Your task to perform on an android device: toggle notification dots Image 0: 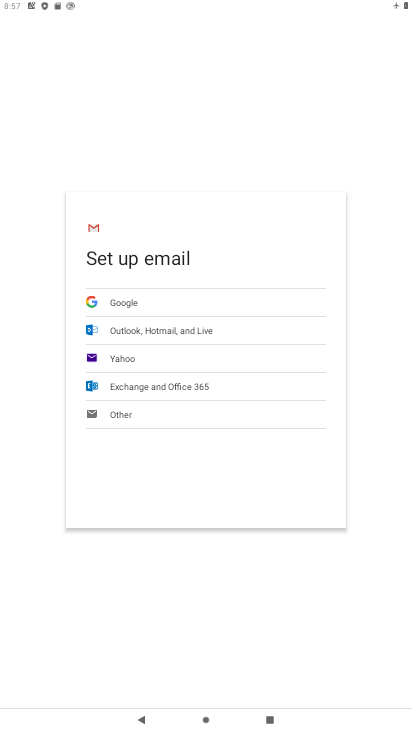
Step 0: press home button
Your task to perform on an android device: toggle notification dots Image 1: 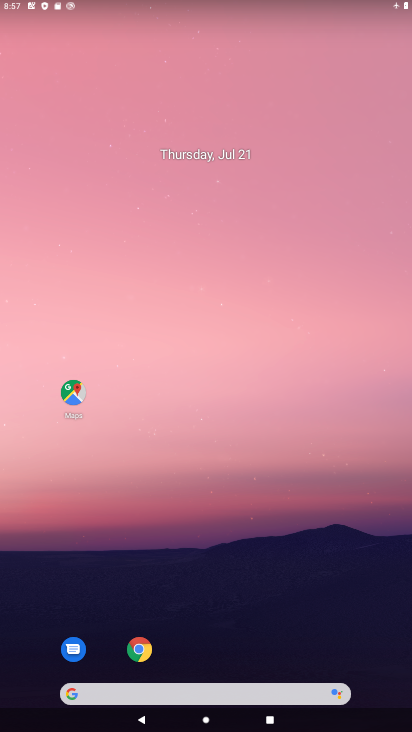
Step 1: drag from (255, 646) to (216, 94)
Your task to perform on an android device: toggle notification dots Image 2: 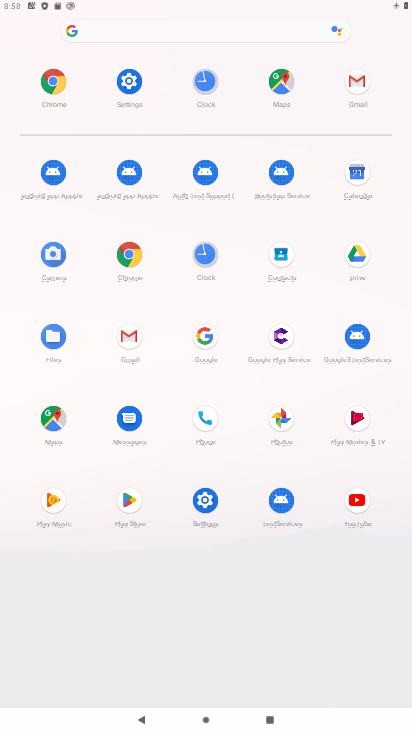
Step 2: click (206, 512)
Your task to perform on an android device: toggle notification dots Image 3: 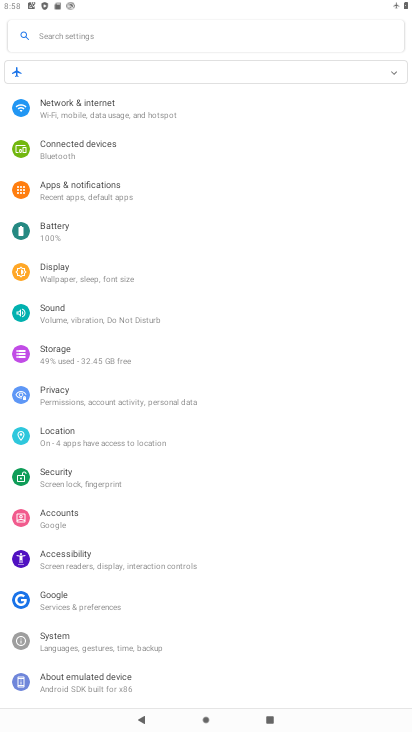
Step 3: click (107, 192)
Your task to perform on an android device: toggle notification dots Image 4: 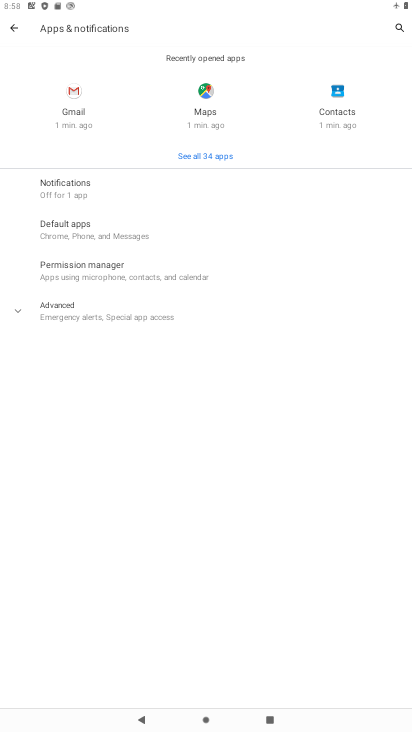
Step 4: click (76, 196)
Your task to perform on an android device: toggle notification dots Image 5: 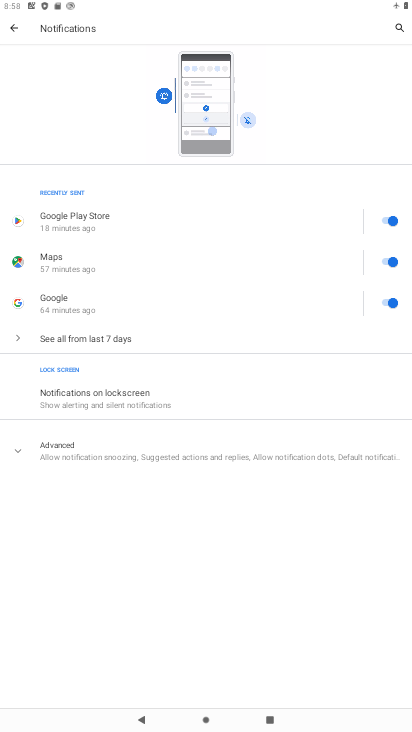
Step 5: click (114, 450)
Your task to perform on an android device: toggle notification dots Image 6: 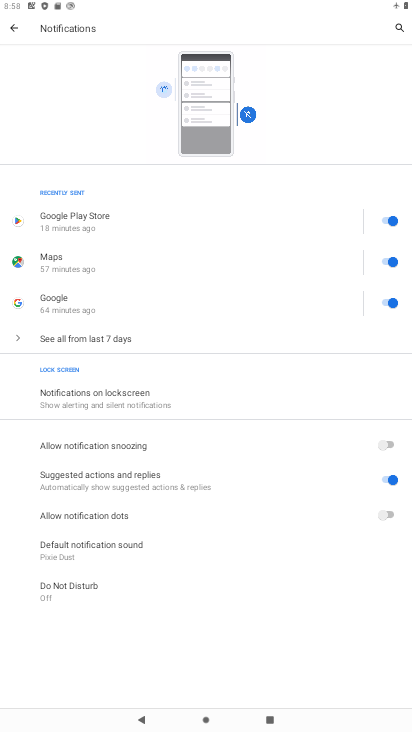
Step 6: click (397, 515)
Your task to perform on an android device: toggle notification dots Image 7: 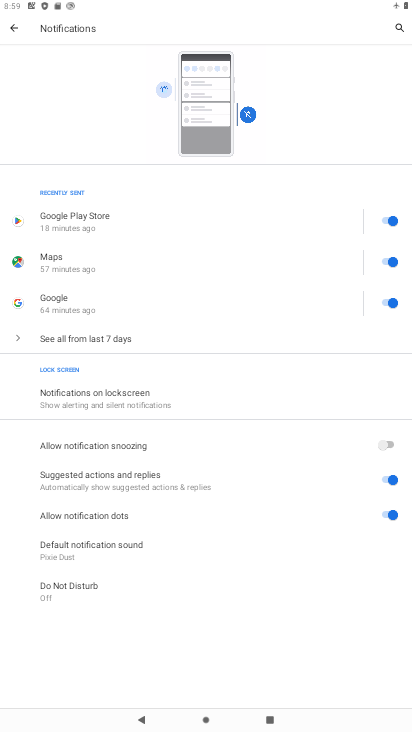
Step 7: press home button
Your task to perform on an android device: toggle notification dots Image 8: 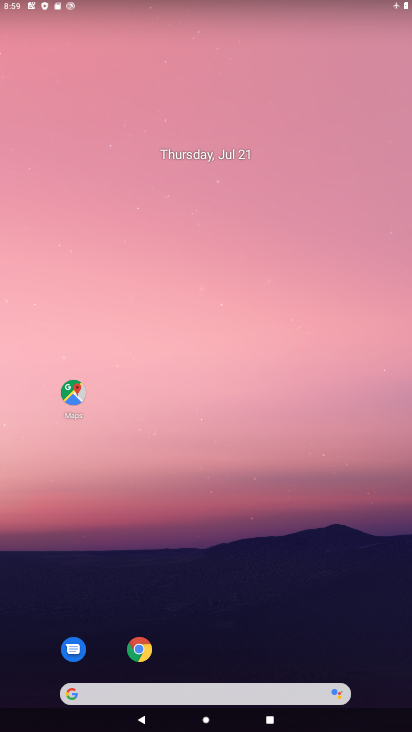
Step 8: drag from (260, 628) to (251, 50)
Your task to perform on an android device: toggle notification dots Image 9: 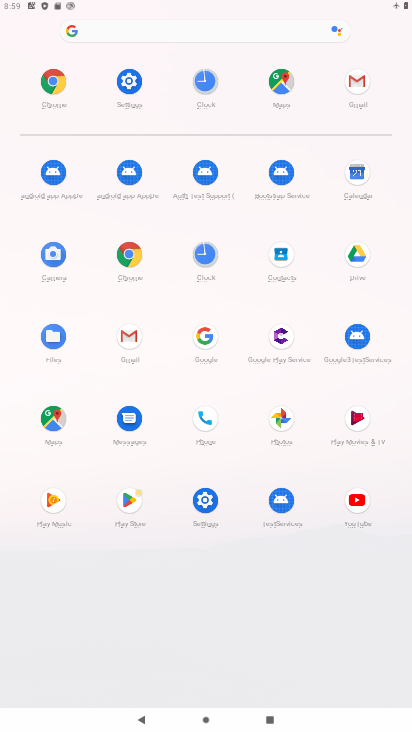
Step 9: click (199, 502)
Your task to perform on an android device: toggle notification dots Image 10: 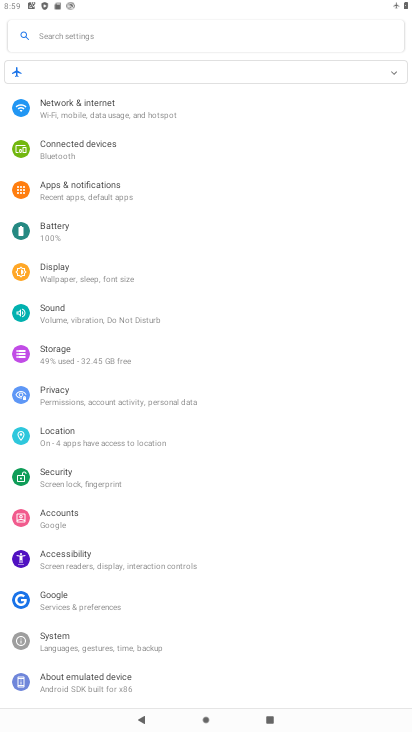
Step 10: click (112, 191)
Your task to perform on an android device: toggle notification dots Image 11: 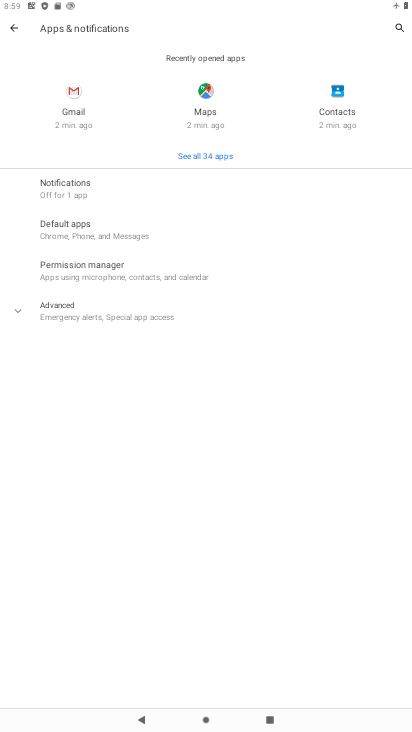
Step 11: click (91, 197)
Your task to perform on an android device: toggle notification dots Image 12: 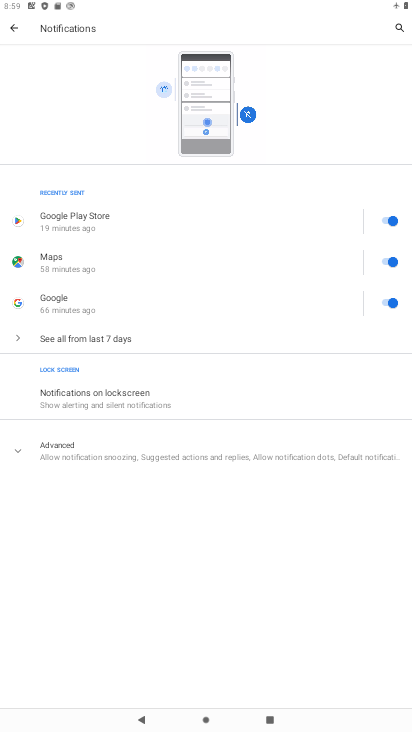
Step 12: click (136, 458)
Your task to perform on an android device: toggle notification dots Image 13: 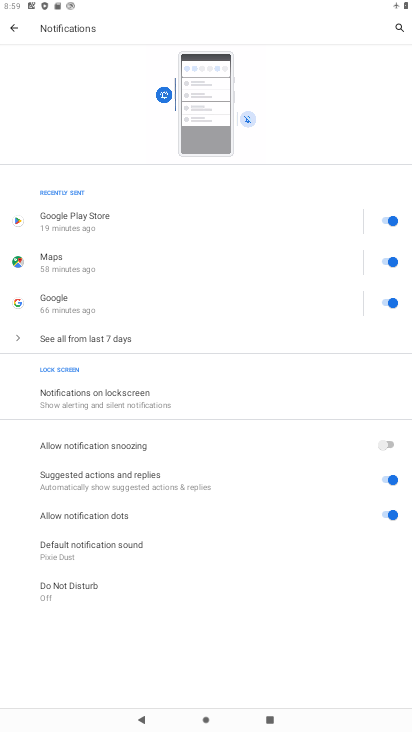
Step 13: click (374, 512)
Your task to perform on an android device: toggle notification dots Image 14: 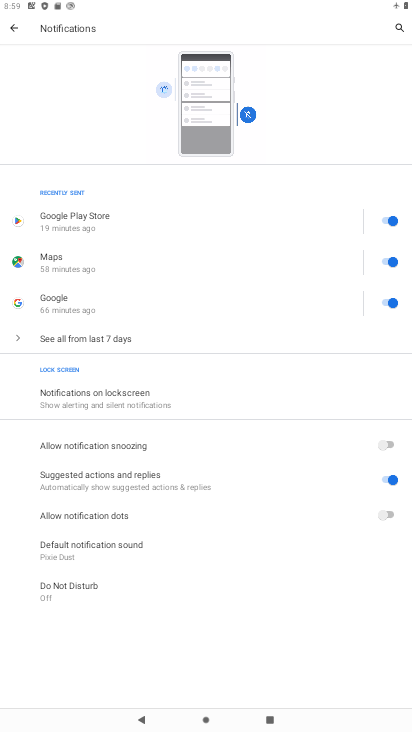
Step 14: task complete